Your task to perform on an android device: see sites visited before in the chrome app Image 0: 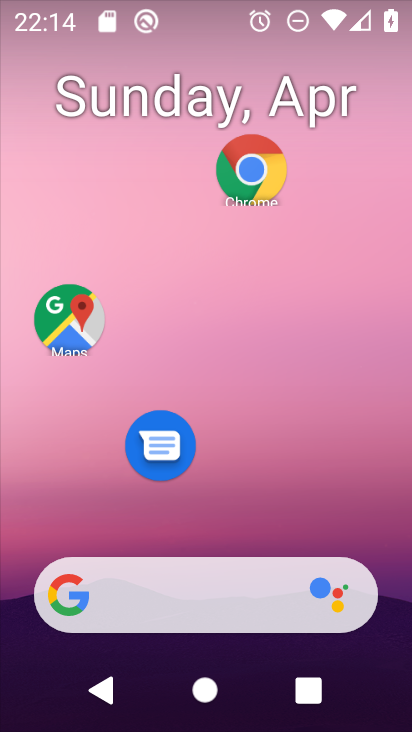
Step 0: click (252, 169)
Your task to perform on an android device: see sites visited before in the chrome app Image 1: 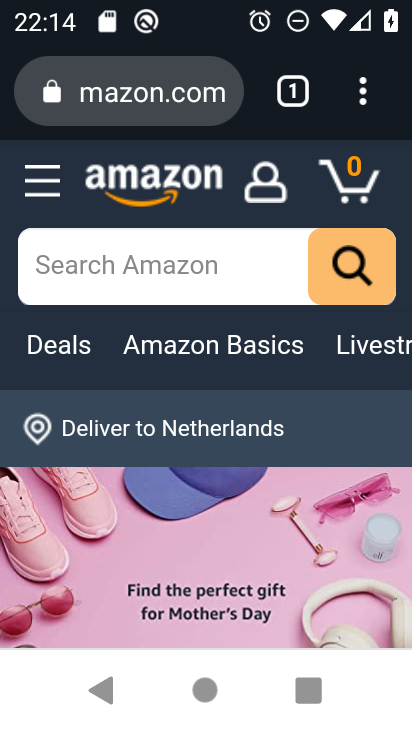
Step 1: click (359, 83)
Your task to perform on an android device: see sites visited before in the chrome app Image 2: 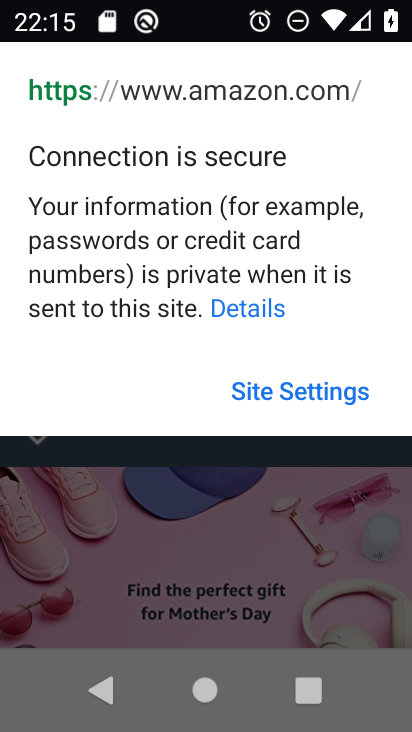
Step 2: press back button
Your task to perform on an android device: see sites visited before in the chrome app Image 3: 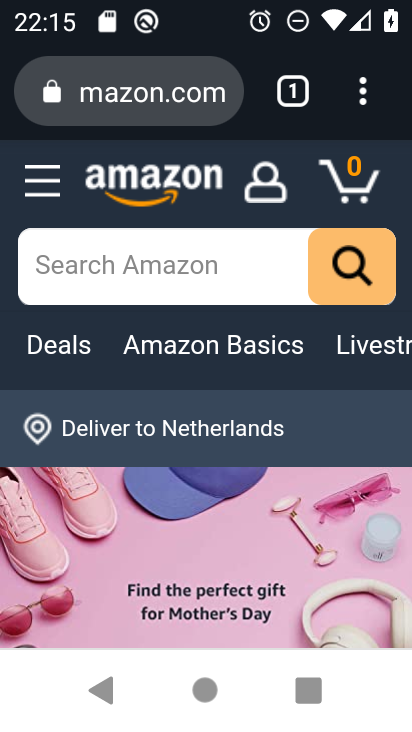
Step 3: click (362, 89)
Your task to perform on an android device: see sites visited before in the chrome app Image 4: 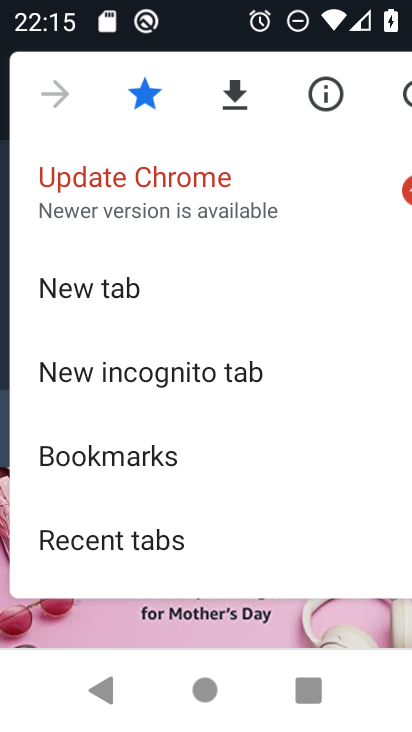
Step 4: drag from (231, 496) to (251, 175)
Your task to perform on an android device: see sites visited before in the chrome app Image 5: 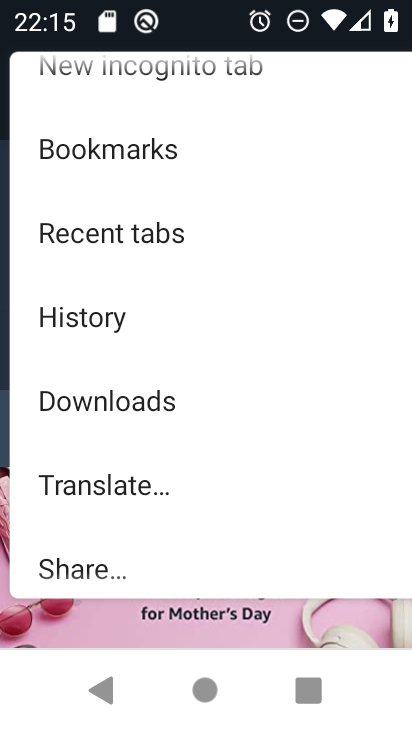
Step 5: drag from (267, 429) to (253, 284)
Your task to perform on an android device: see sites visited before in the chrome app Image 6: 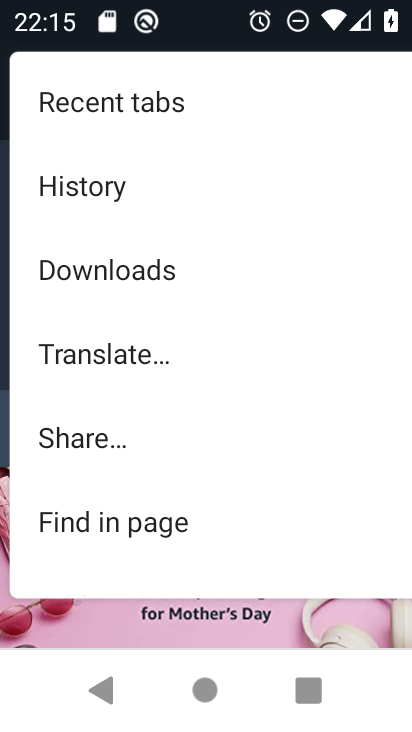
Step 6: click (123, 202)
Your task to perform on an android device: see sites visited before in the chrome app Image 7: 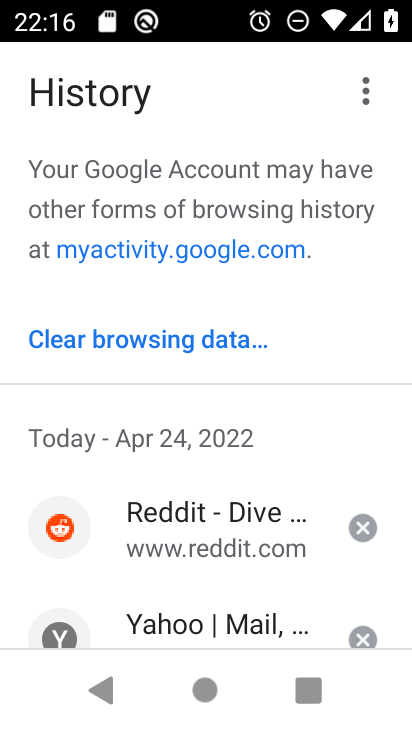
Step 7: task complete